Your task to perform on an android device: see tabs open on other devices in the chrome app Image 0: 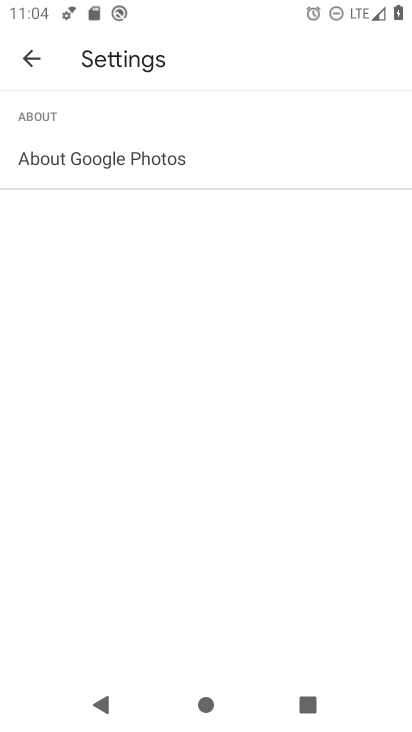
Step 0: press home button
Your task to perform on an android device: see tabs open on other devices in the chrome app Image 1: 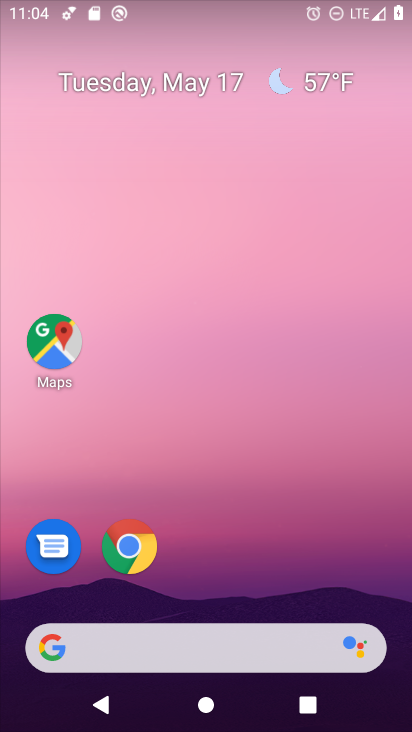
Step 1: click (135, 551)
Your task to perform on an android device: see tabs open on other devices in the chrome app Image 2: 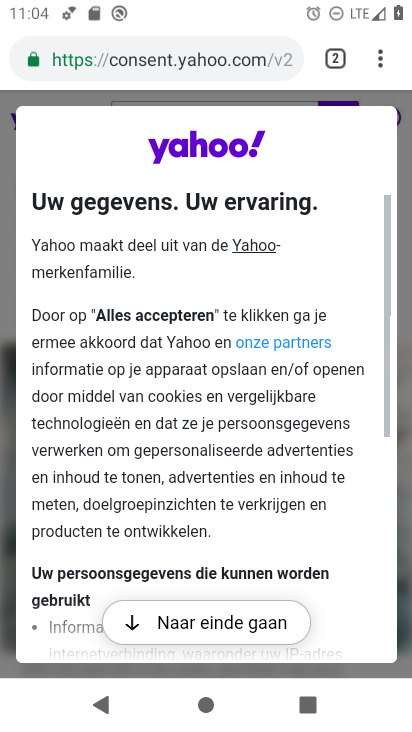
Step 2: click (382, 57)
Your task to perform on an android device: see tabs open on other devices in the chrome app Image 3: 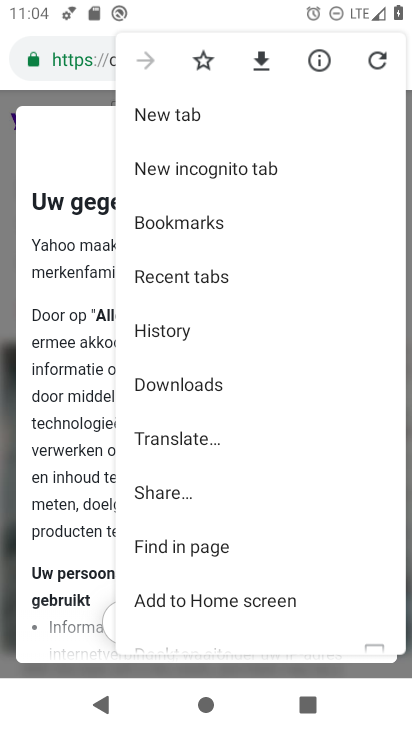
Step 3: click (192, 281)
Your task to perform on an android device: see tabs open on other devices in the chrome app Image 4: 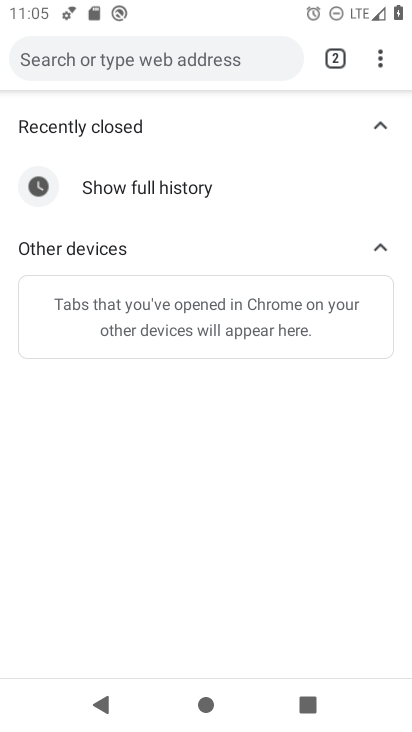
Step 4: task complete